Your task to perform on an android device: Open Google Maps and go to "Timeline" Image 0: 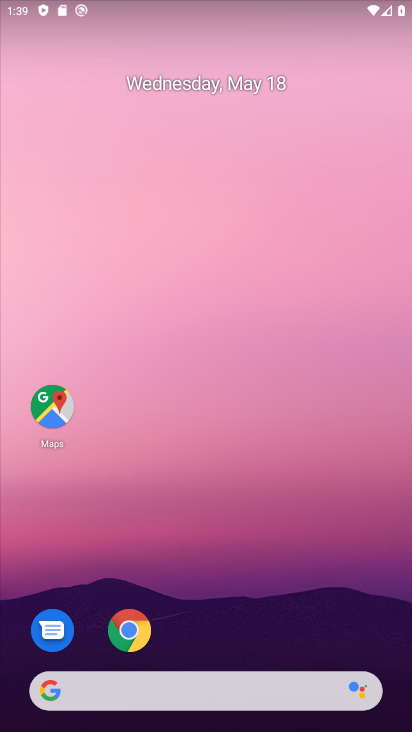
Step 0: click (44, 409)
Your task to perform on an android device: Open Google Maps and go to "Timeline" Image 1: 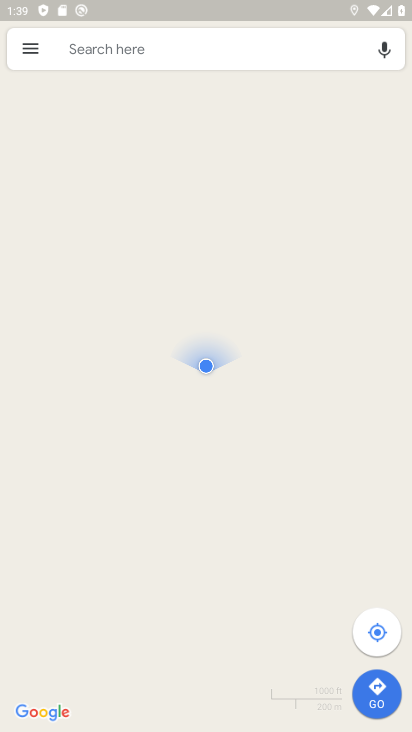
Step 1: click (28, 43)
Your task to perform on an android device: Open Google Maps and go to "Timeline" Image 2: 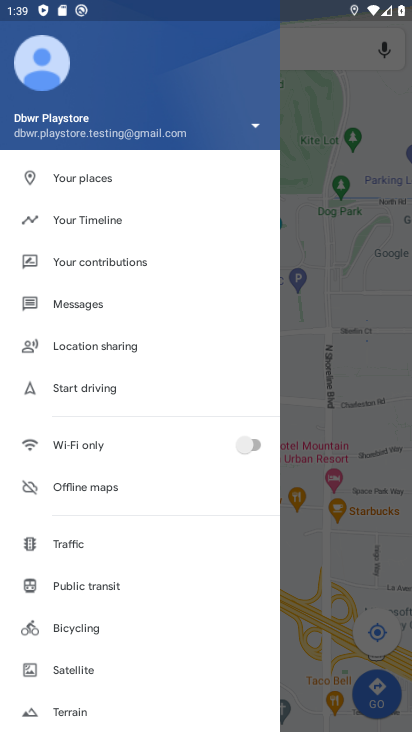
Step 2: click (74, 230)
Your task to perform on an android device: Open Google Maps and go to "Timeline" Image 3: 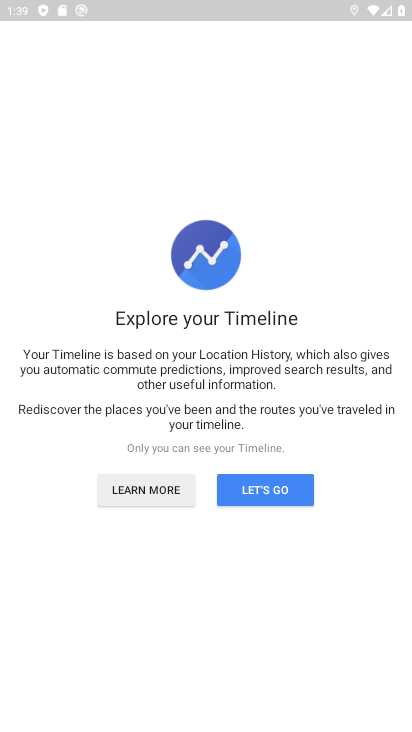
Step 3: task complete